Your task to perform on an android device: turn pop-ups on in chrome Image 0: 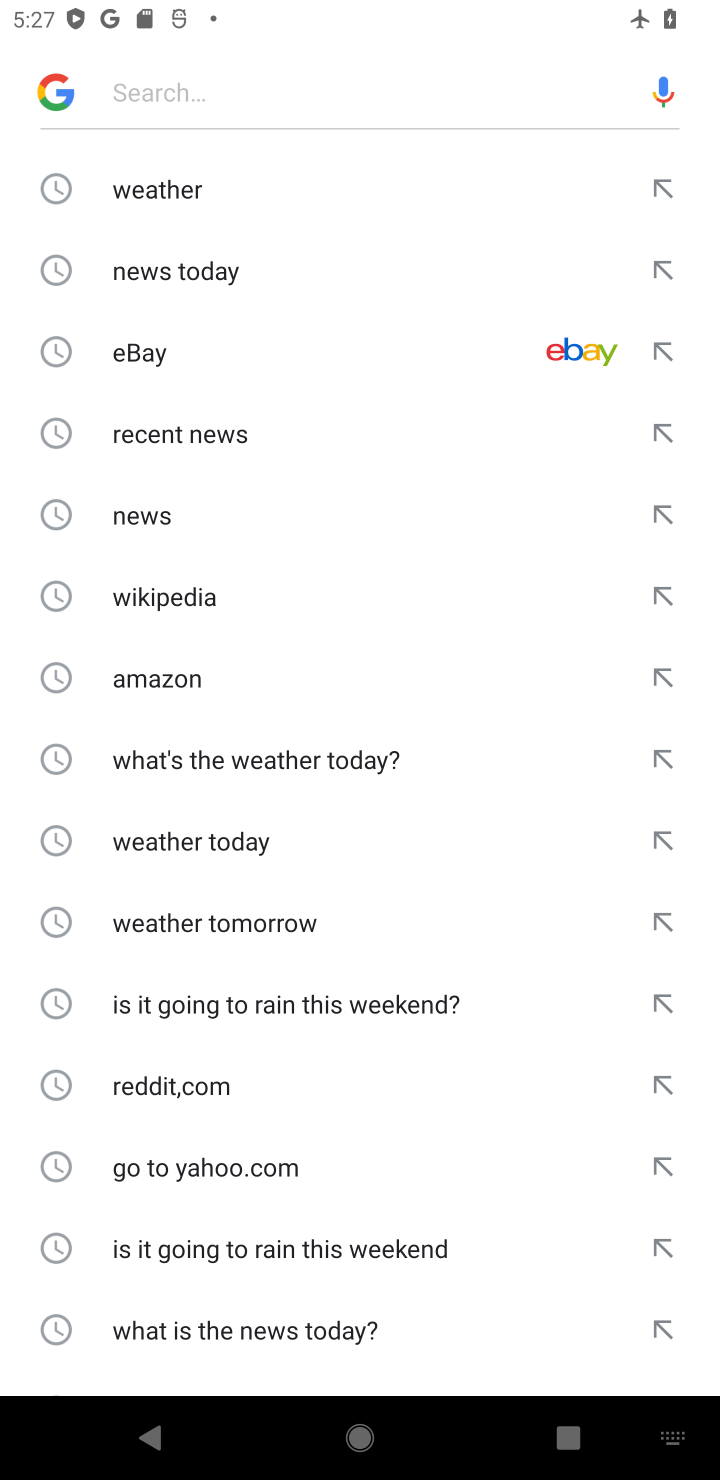
Step 0: press back button
Your task to perform on an android device: turn pop-ups on in chrome Image 1: 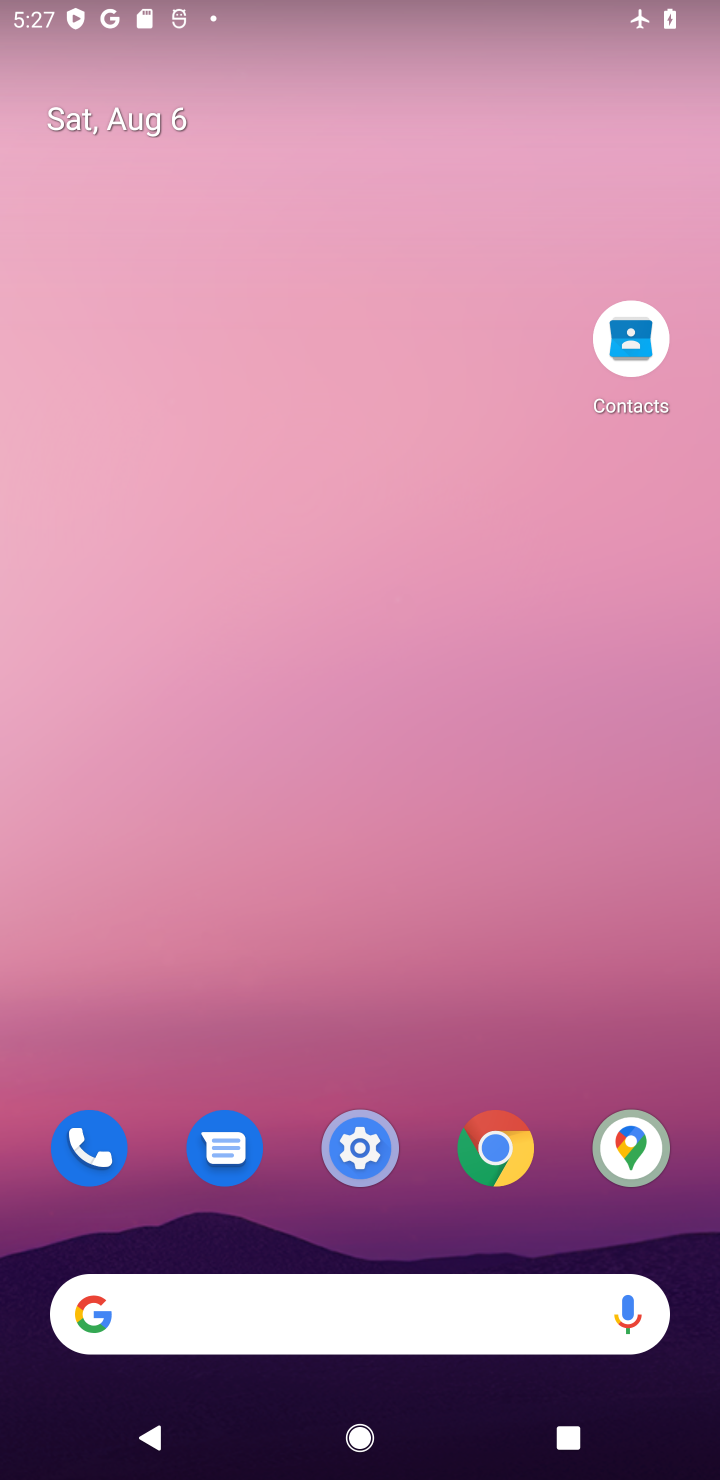
Step 1: click (473, 1160)
Your task to perform on an android device: turn pop-ups on in chrome Image 2: 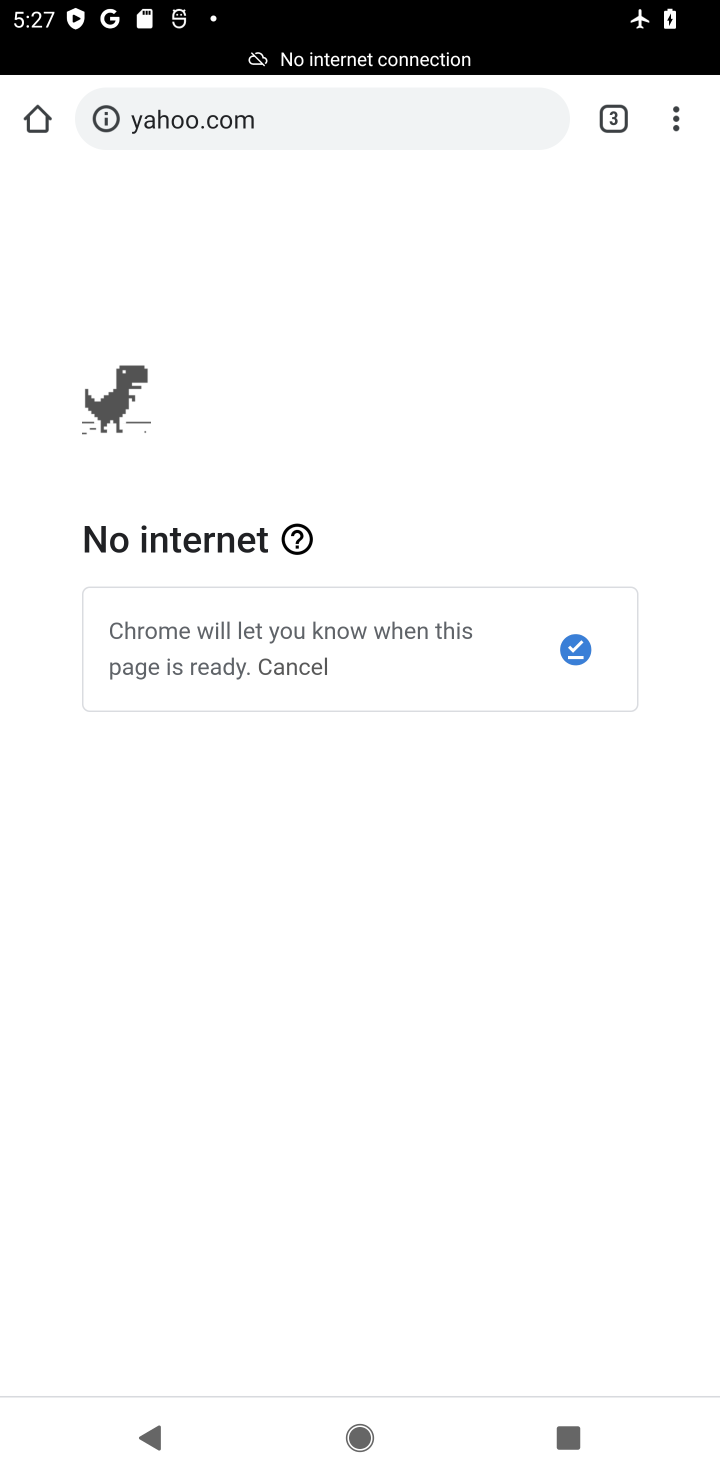
Step 2: click (676, 111)
Your task to perform on an android device: turn pop-ups on in chrome Image 3: 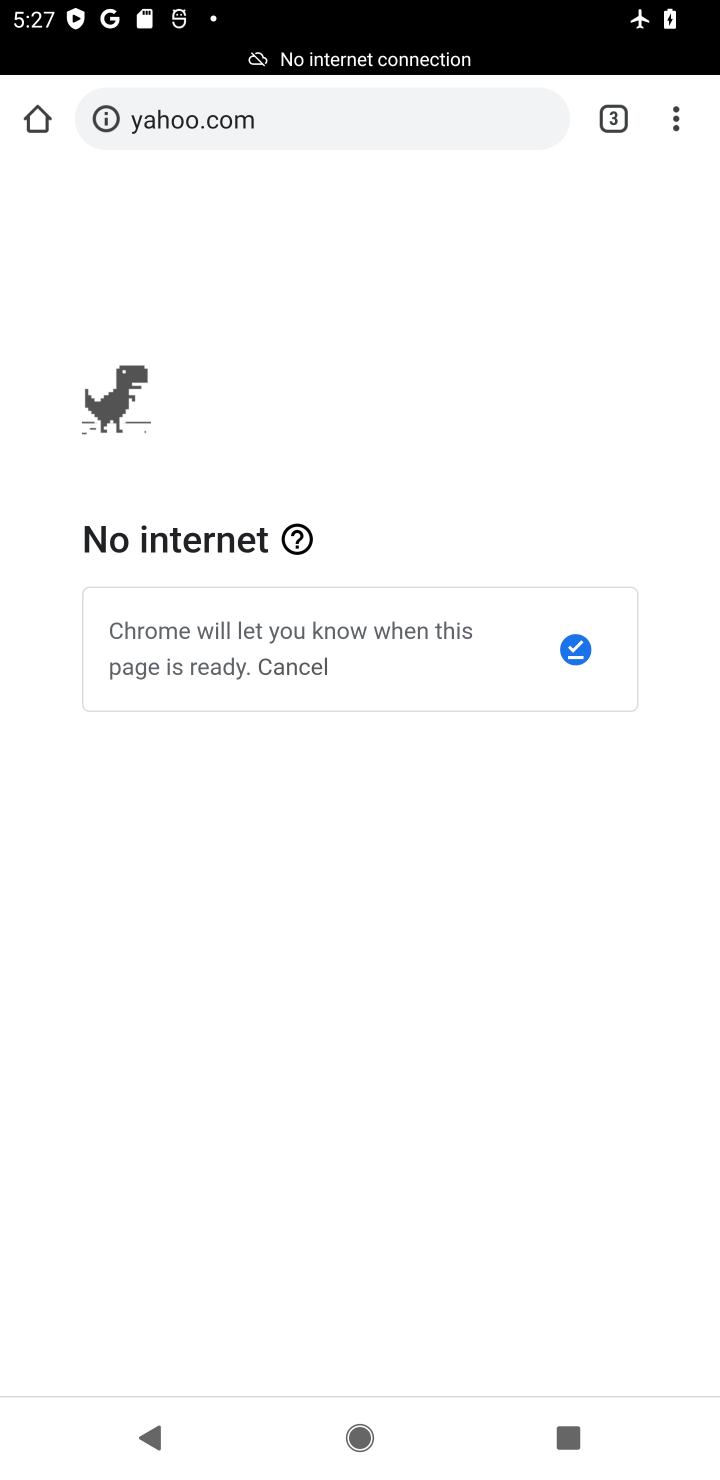
Step 3: drag from (685, 112) to (402, 1087)
Your task to perform on an android device: turn pop-ups on in chrome Image 4: 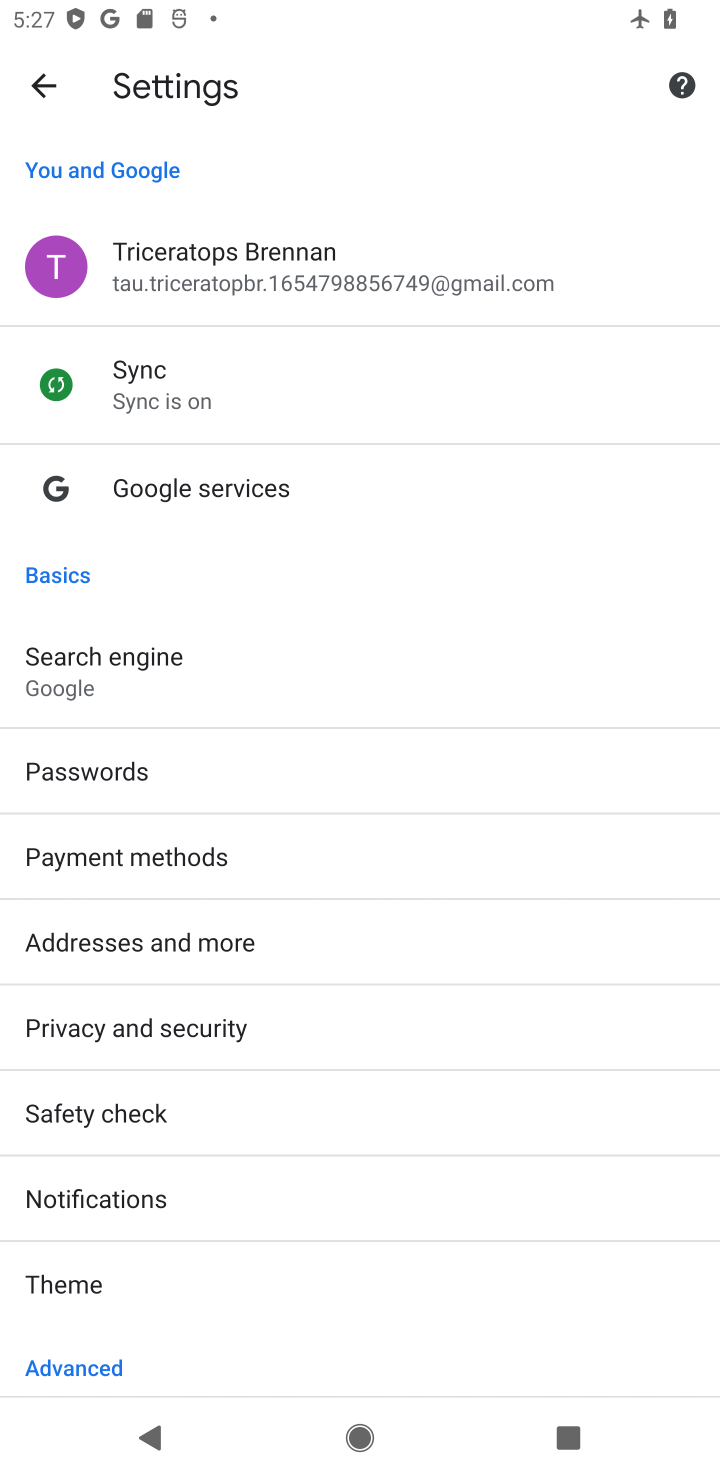
Step 4: drag from (304, 1154) to (317, 228)
Your task to perform on an android device: turn pop-ups on in chrome Image 5: 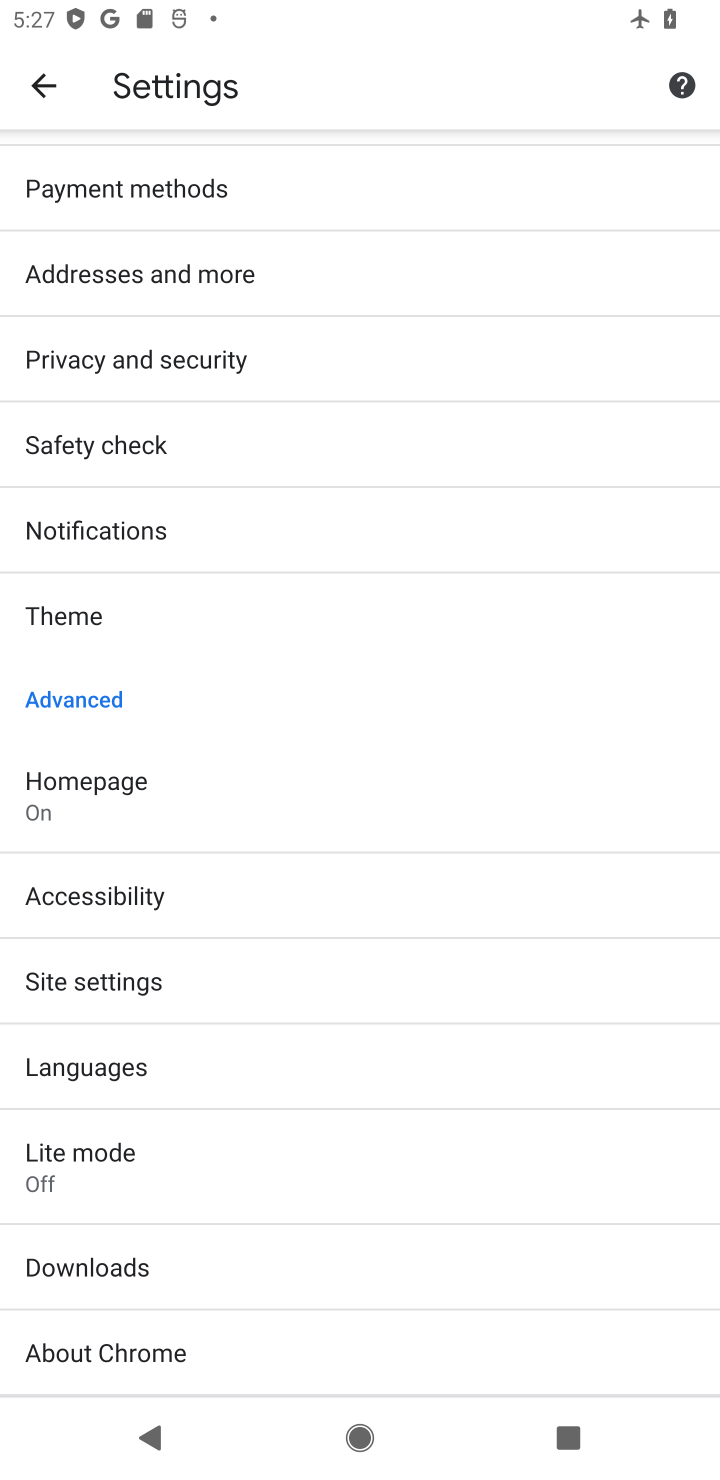
Step 5: click (101, 990)
Your task to perform on an android device: turn pop-ups on in chrome Image 6: 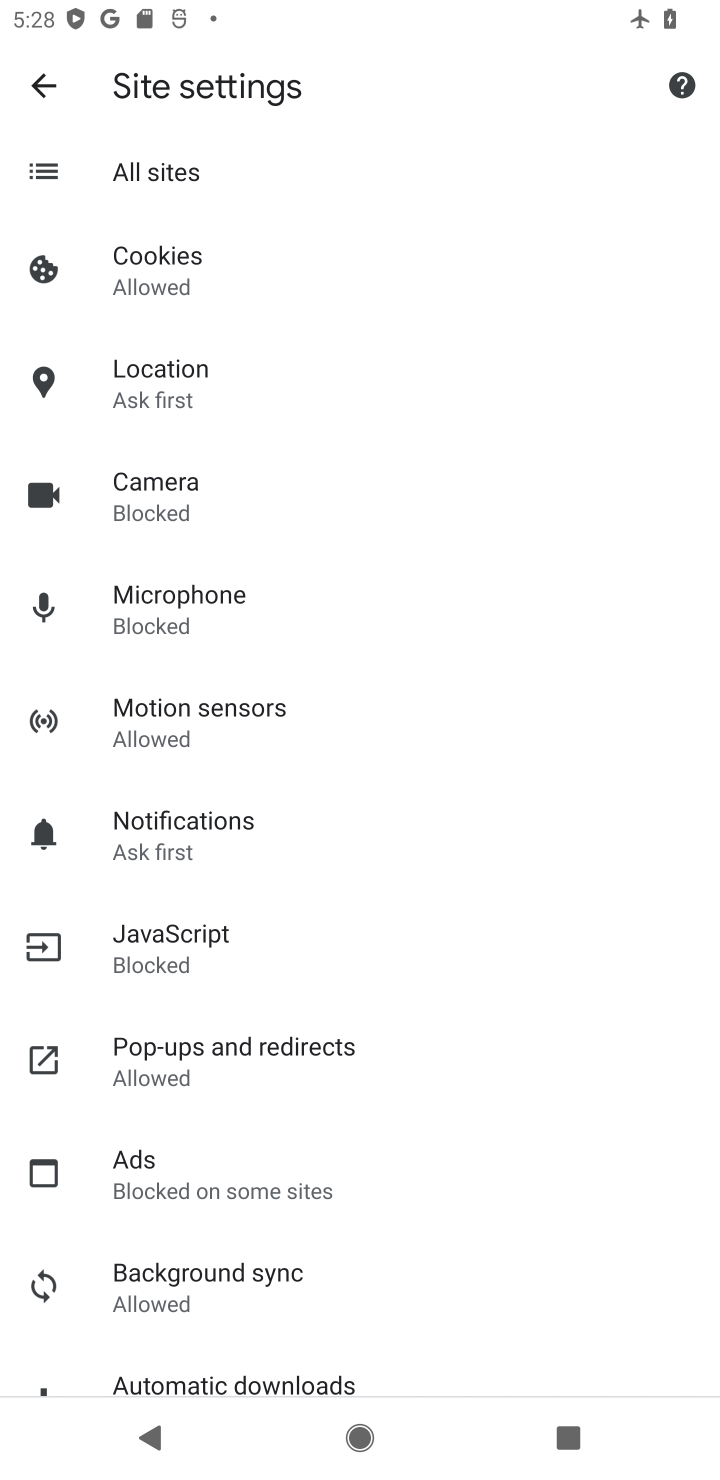
Step 6: click (233, 1058)
Your task to perform on an android device: turn pop-ups on in chrome Image 7: 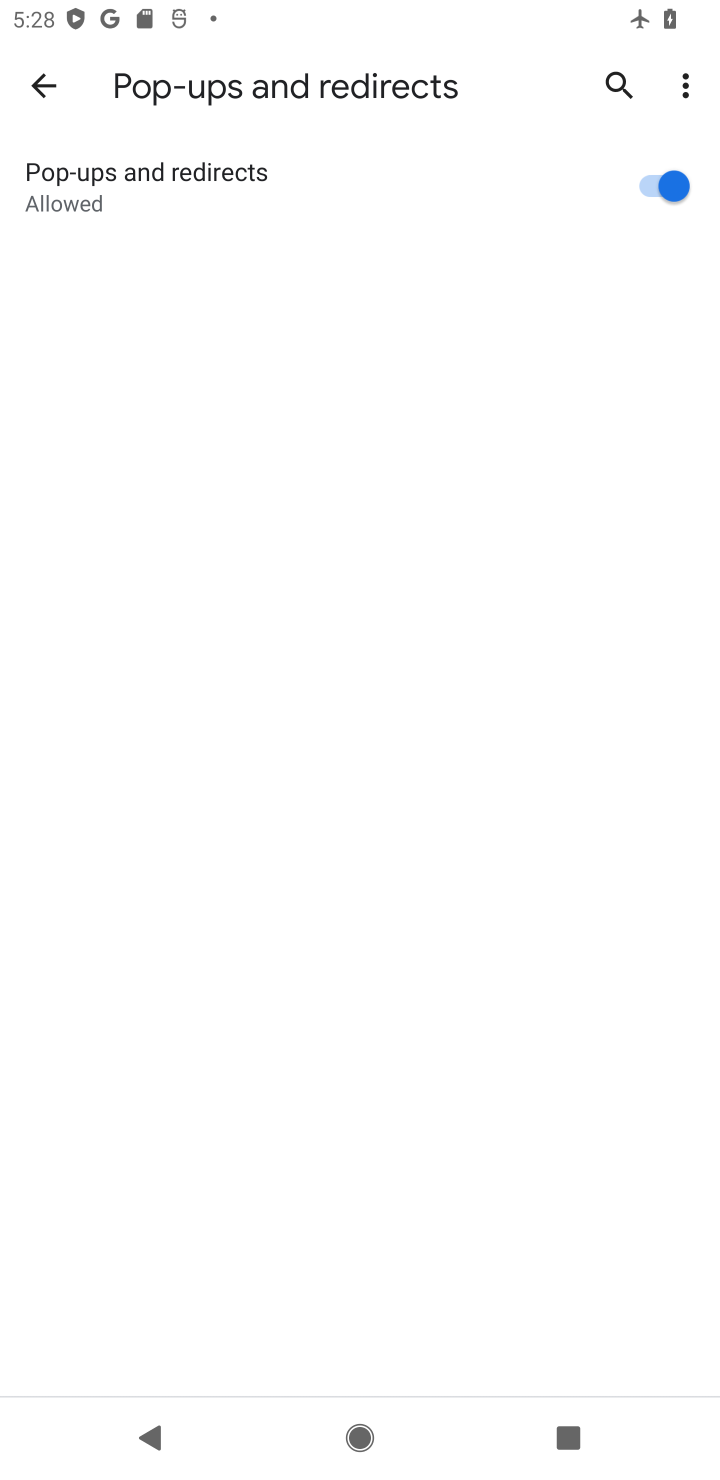
Step 7: click (629, 182)
Your task to perform on an android device: turn pop-ups on in chrome Image 8: 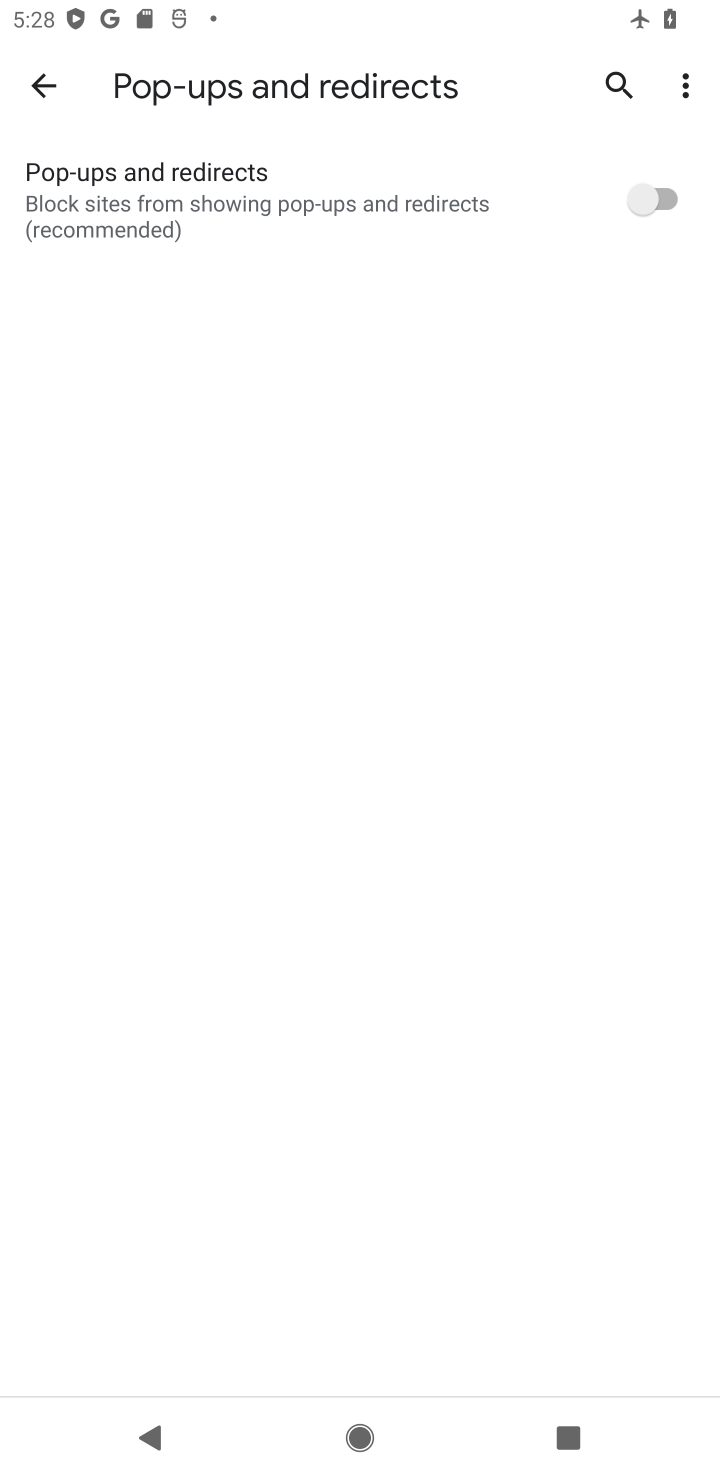
Step 8: click (629, 182)
Your task to perform on an android device: turn pop-ups on in chrome Image 9: 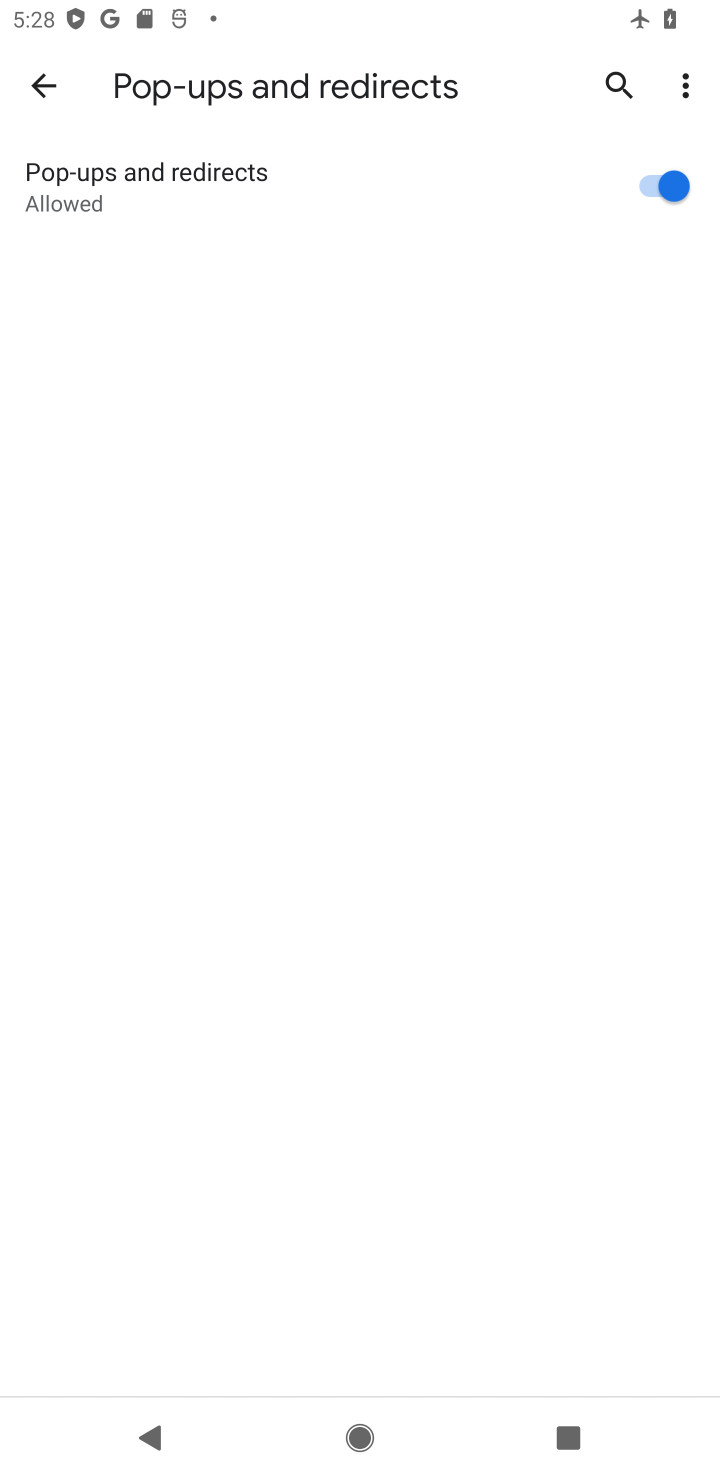
Step 9: task complete